Your task to perform on an android device: toggle airplane mode Image 0: 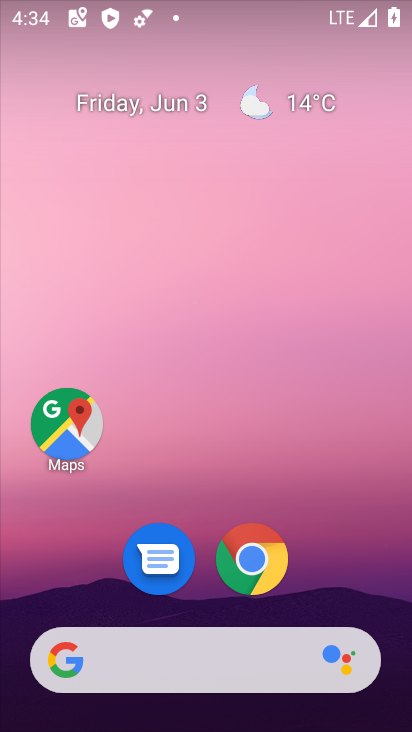
Step 0: drag from (310, 9) to (245, 485)
Your task to perform on an android device: toggle airplane mode Image 1: 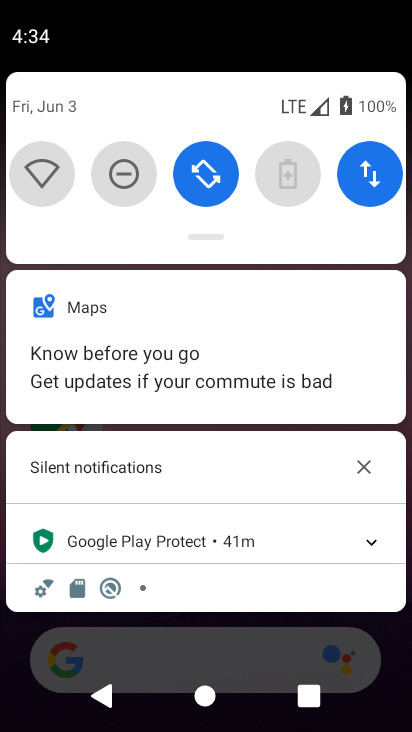
Step 1: drag from (312, 209) to (268, 621)
Your task to perform on an android device: toggle airplane mode Image 2: 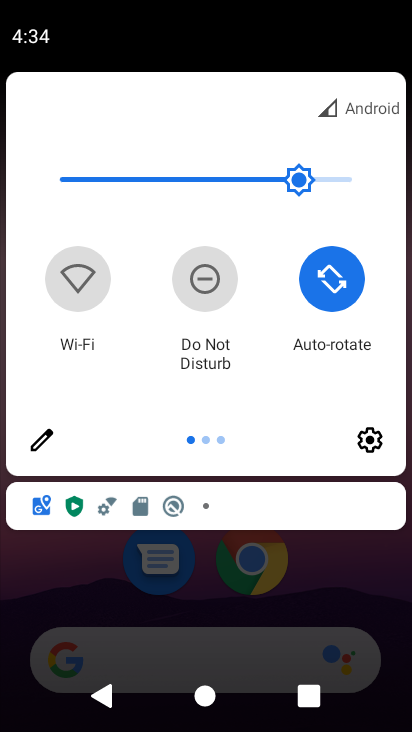
Step 2: drag from (376, 279) to (8, 291)
Your task to perform on an android device: toggle airplane mode Image 3: 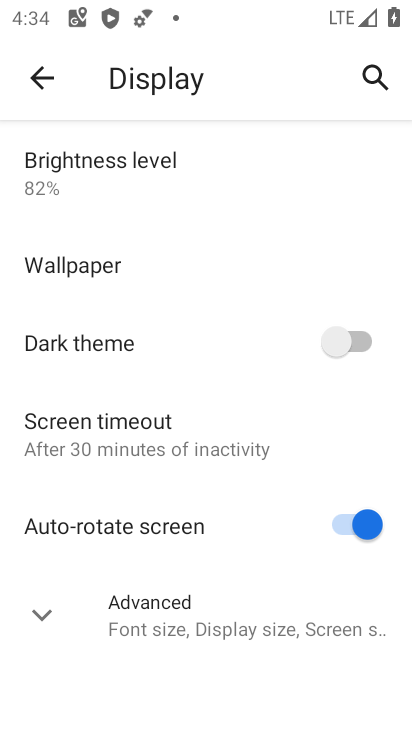
Step 3: click (35, 76)
Your task to perform on an android device: toggle airplane mode Image 4: 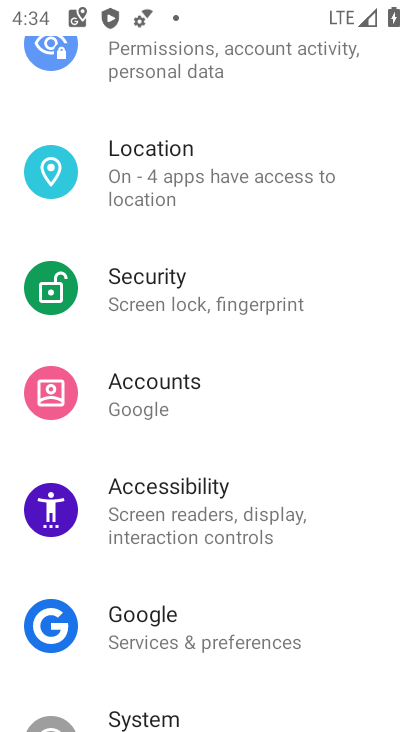
Step 4: press home button
Your task to perform on an android device: toggle airplane mode Image 5: 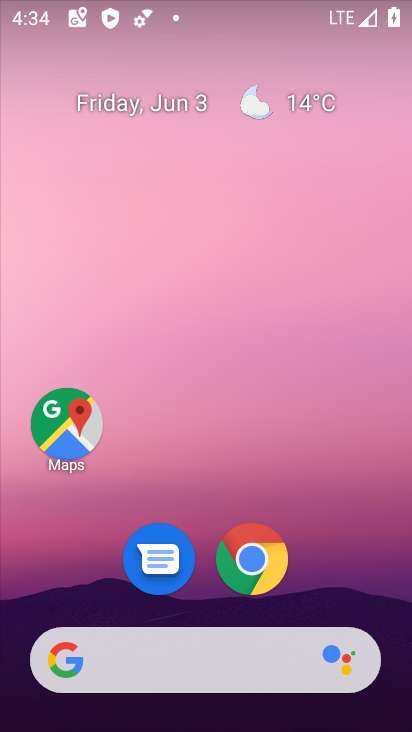
Step 5: drag from (314, 15) to (256, 351)
Your task to perform on an android device: toggle airplane mode Image 6: 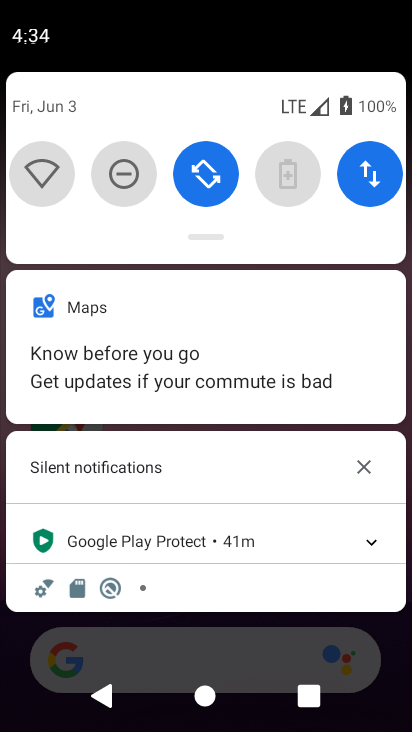
Step 6: drag from (325, 201) to (269, 582)
Your task to perform on an android device: toggle airplane mode Image 7: 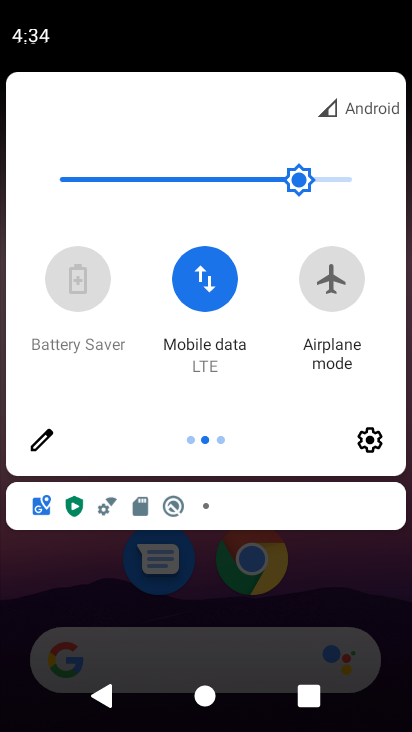
Step 7: click (329, 271)
Your task to perform on an android device: toggle airplane mode Image 8: 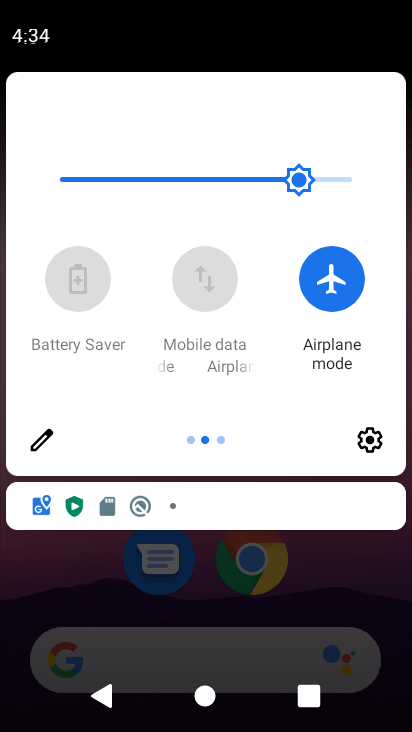
Step 8: click (335, 280)
Your task to perform on an android device: toggle airplane mode Image 9: 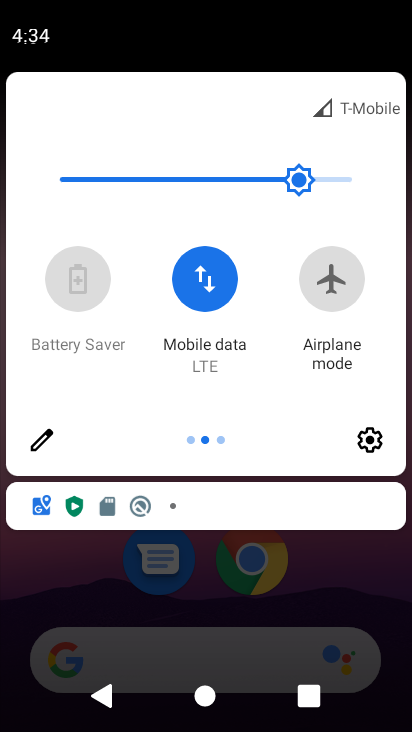
Step 9: click (345, 280)
Your task to perform on an android device: toggle airplane mode Image 10: 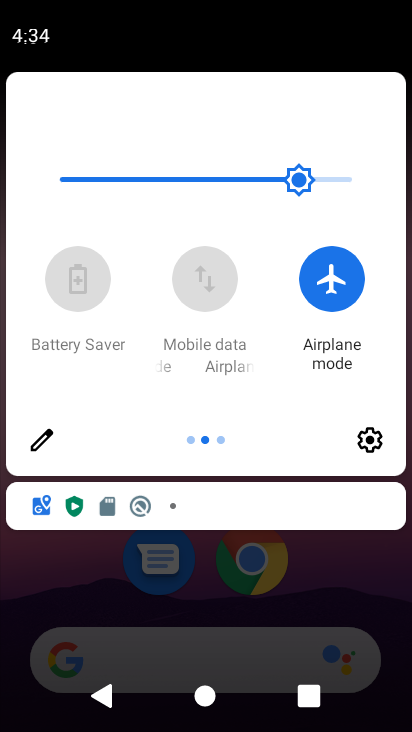
Step 10: task complete